Your task to perform on an android device: Go to calendar. Show me events next week Image 0: 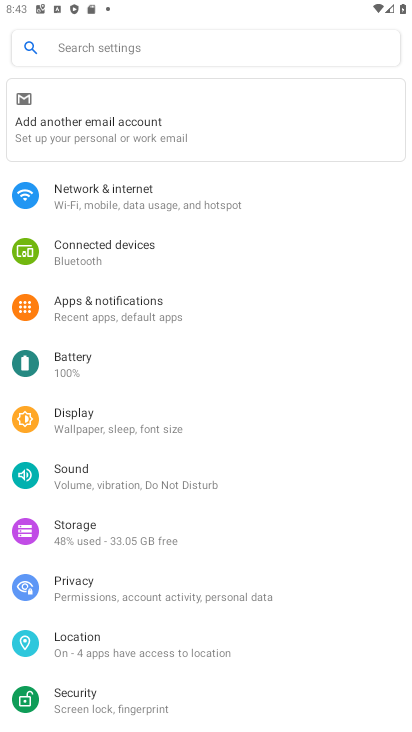
Step 0: press home button
Your task to perform on an android device: Go to calendar. Show me events next week Image 1: 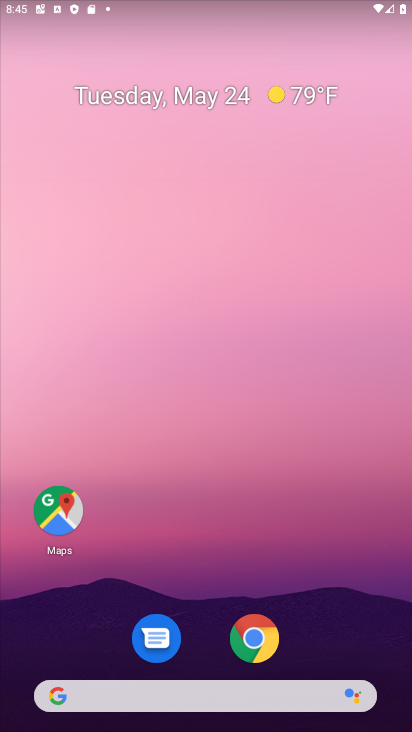
Step 1: drag from (112, 718) to (148, 85)
Your task to perform on an android device: Go to calendar. Show me events next week Image 2: 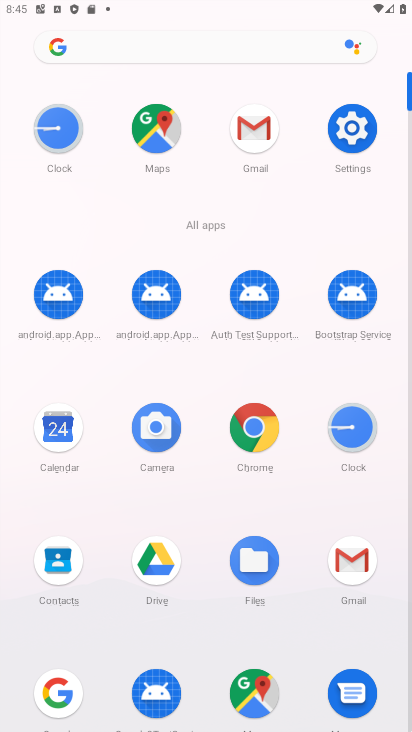
Step 2: click (59, 426)
Your task to perform on an android device: Go to calendar. Show me events next week Image 3: 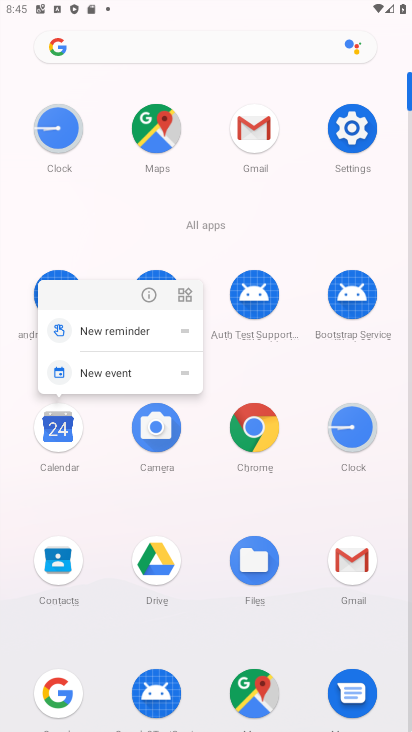
Step 3: click (38, 419)
Your task to perform on an android device: Go to calendar. Show me events next week Image 4: 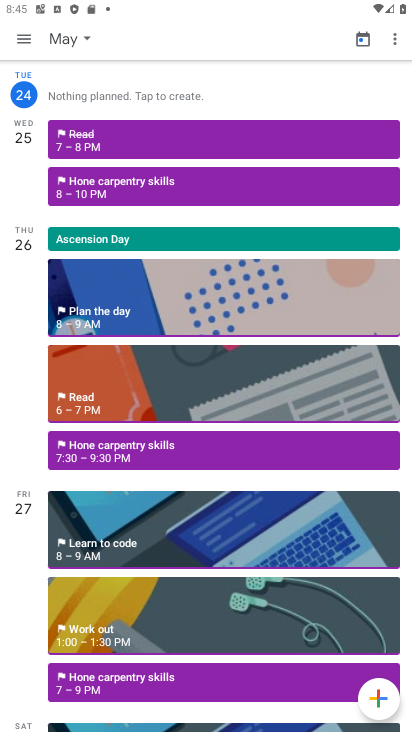
Step 4: click (57, 36)
Your task to perform on an android device: Go to calendar. Show me events next week Image 5: 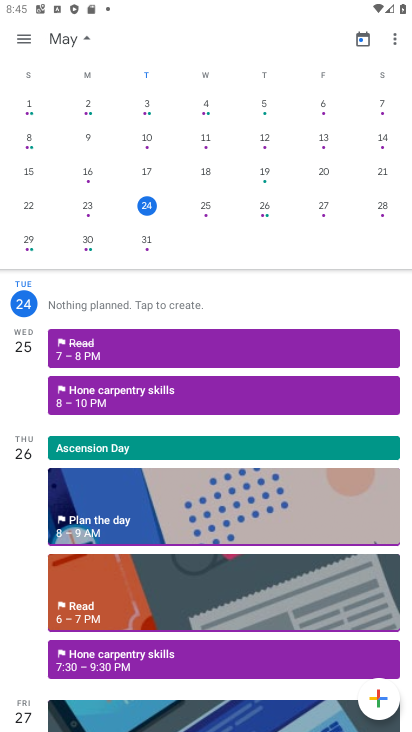
Step 5: click (32, 240)
Your task to perform on an android device: Go to calendar. Show me events next week Image 6: 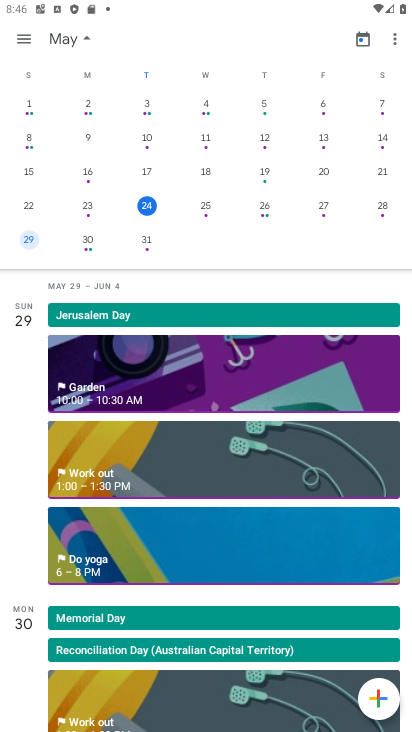
Step 6: task complete